Your task to perform on an android device: make emails show in primary in the gmail app Image 0: 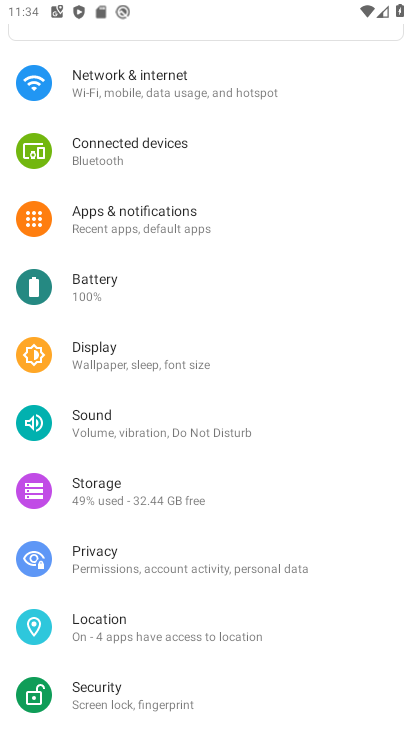
Step 0: press home button
Your task to perform on an android device: make emails show in primary in the gmail app Image 1: 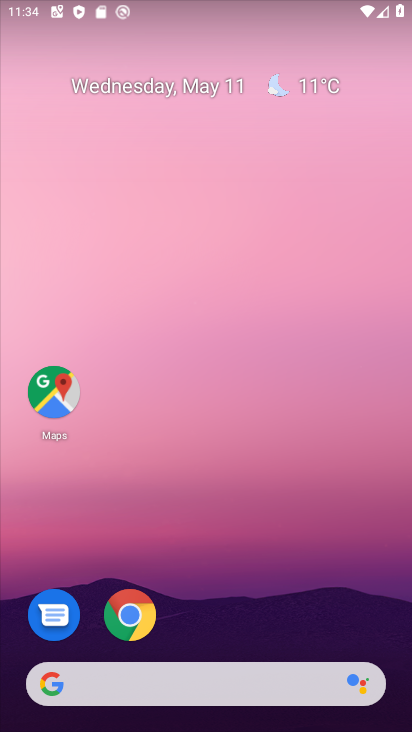
Step 1: drag from (265, 566) to (291, 45)
Your task to perform on an android device: make emails show in primary in the gmail app Image 2: 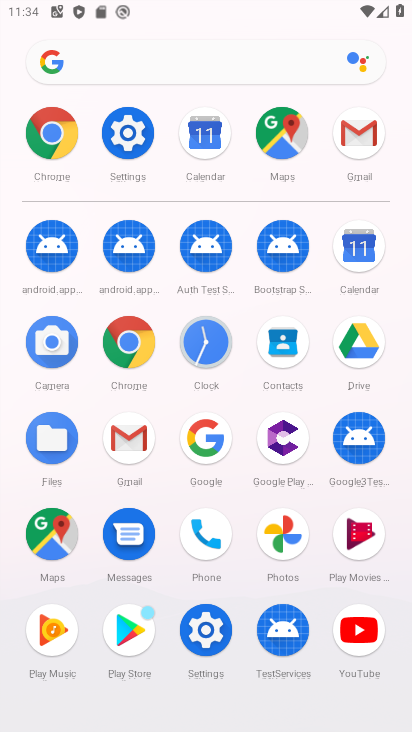
Step 2: click (364, 137)
Your task to perform on an android device: make emails show in primary in the gmail app Image 3: 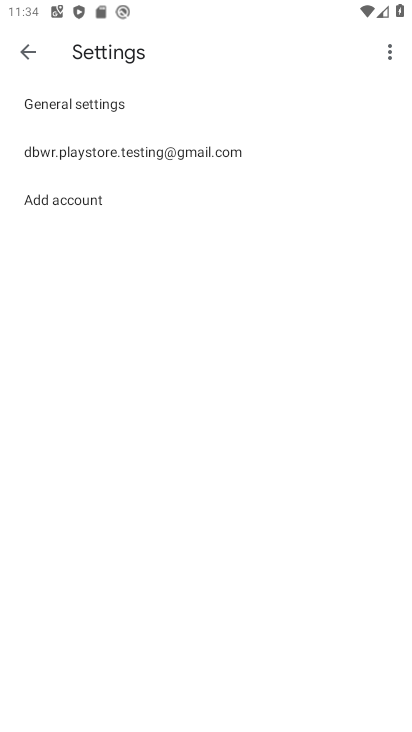
Step 3: click (47, 148)
Your task to perform on an android device: make emails show in primary in the gmail app Image 4: 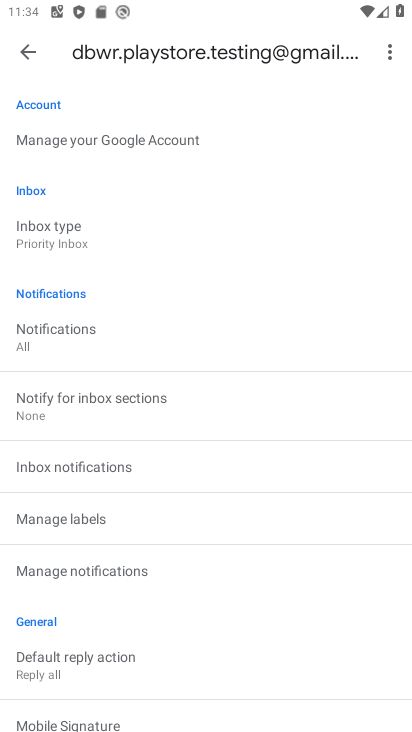
Step 4: click (79, 233)
Your task to perform on an android device: make emails show in primary in the gmail app Image 5: 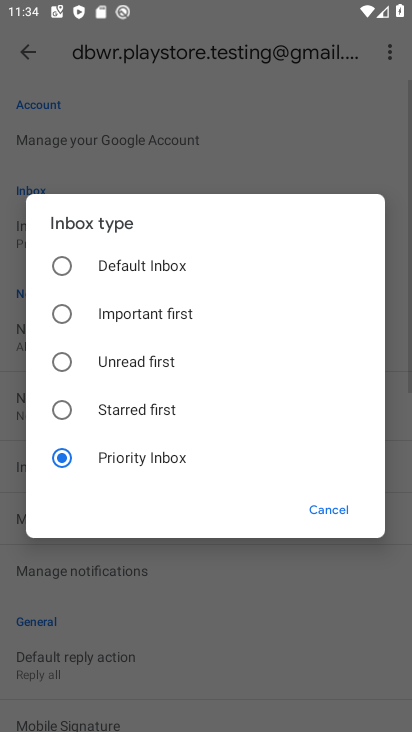
Step 5: click (175, 264)
Your task to perform on an android device: make emails show in primary in the gmail app Image 6: 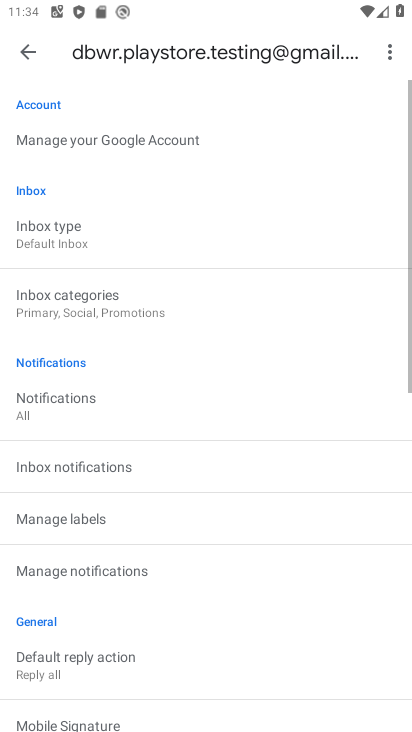
Step 6: click (132, 301)
Your task to perform on an android device: make emails show in primary in the gmail app Image 7: 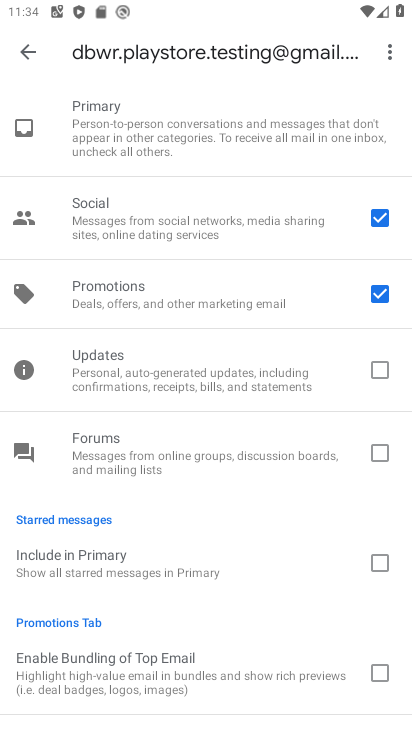
Step 7: task complete